Your task to perform on an android device: What's on my calendar tomorrow? Image 0: 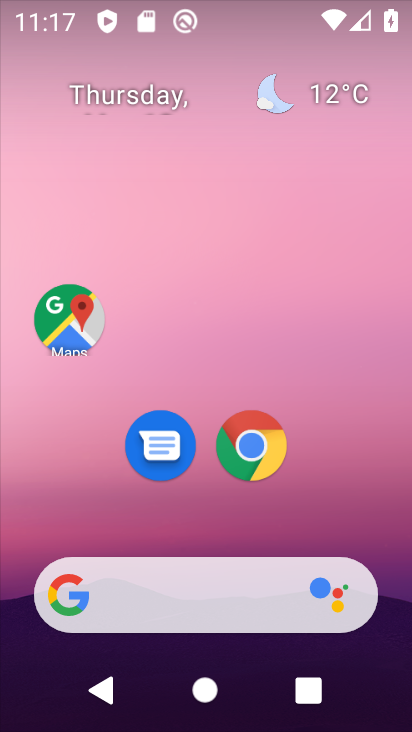
Step 0: drag from (151, 593) to (201, 89)
Your task to perform on an android device: What's on my calendar tomorrow? Image 1: 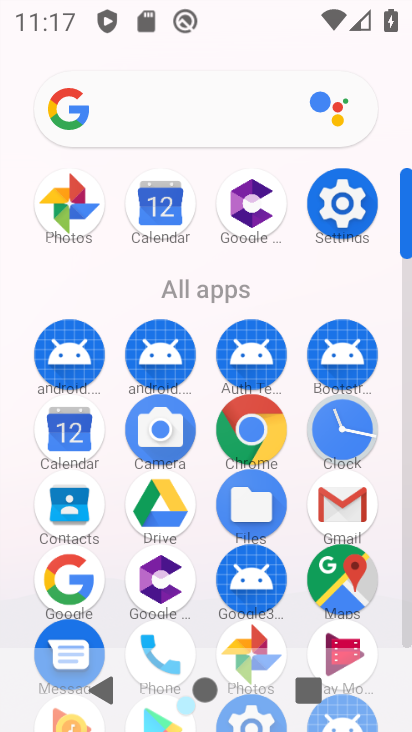
Step 1: click (73, 433)
Your task to perform on an android device: What's on my calendar tomorrow? Image 2: 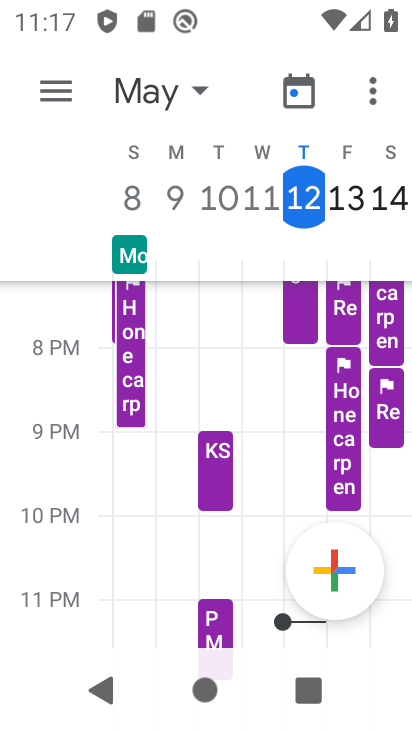
Step 2: click (54, 96)
Your task to perform on an android device: What's on my calendar tomorrow? Image 3: 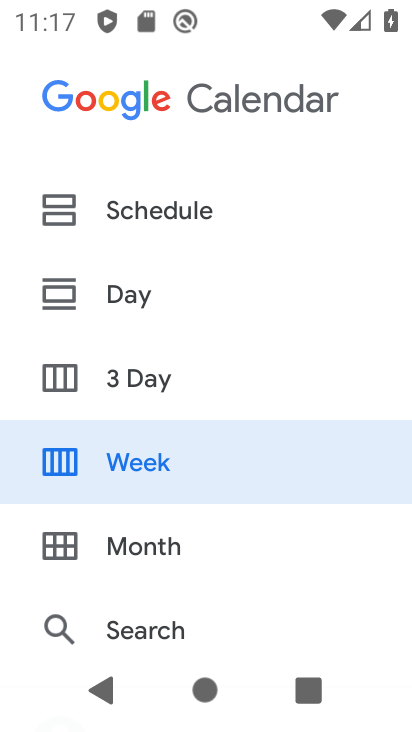
Step 3: click (99, 208)
Your task to perform on an android device: What's on my calendar tomorrow? Image 4: 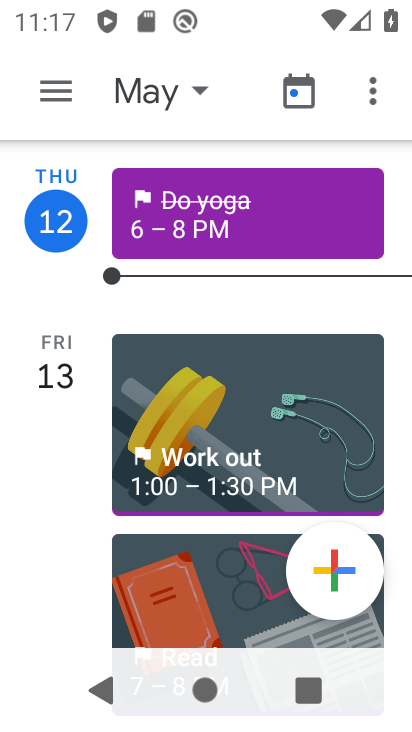
Step 4: task complete